Your task to perform on an android device: Open internet settings Image 0: 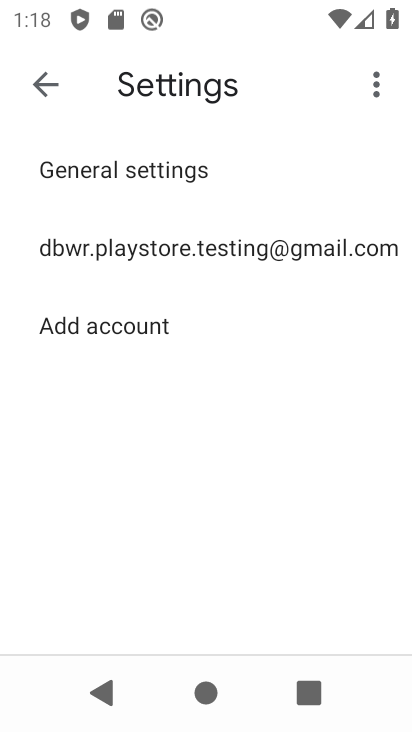
Step 0: press home button
Your task to perform on an android device: Open internet settings Image 1: 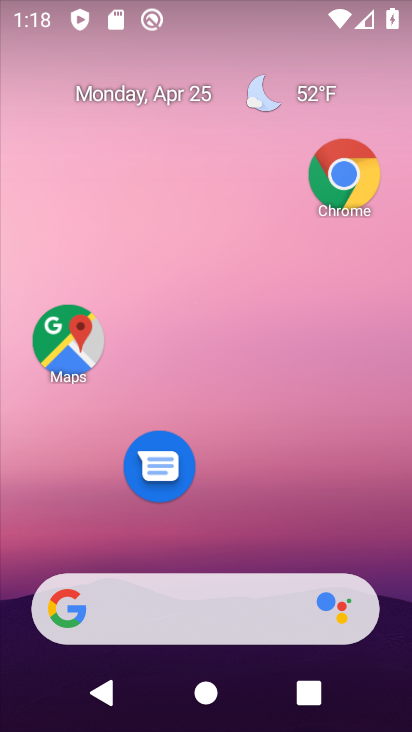
Step 1: drag from (301, 472) to (252, 42)
Your task to perform on an android device: Open internet settings Image 2: 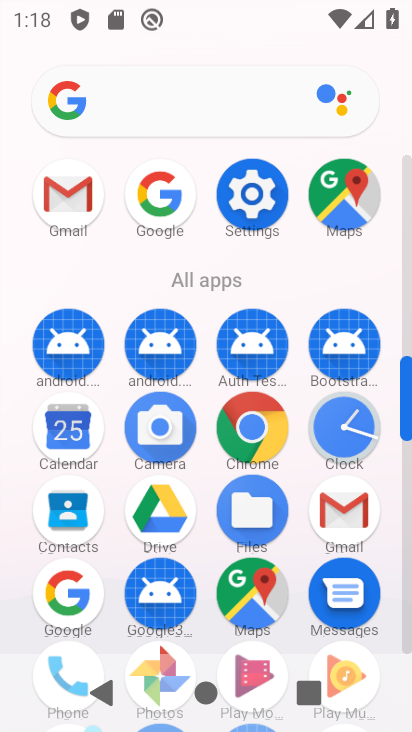
Step 2: click (255, 207)
Your task to perform on an android device: Open internet settings Image 3: 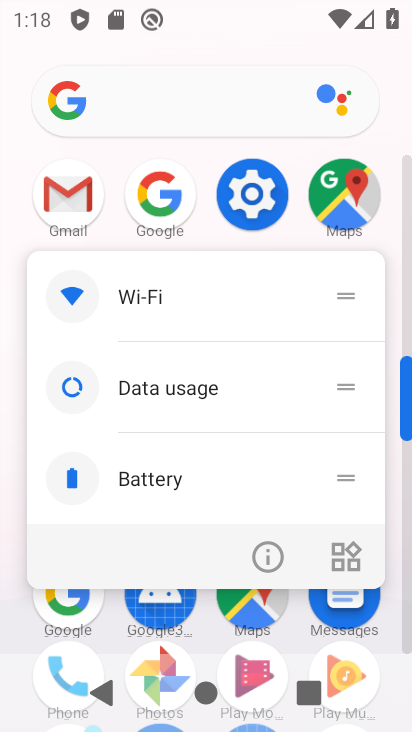
Step 3: click (252, 206)
Your task to perform on an android device: Open internet settings Image 4: 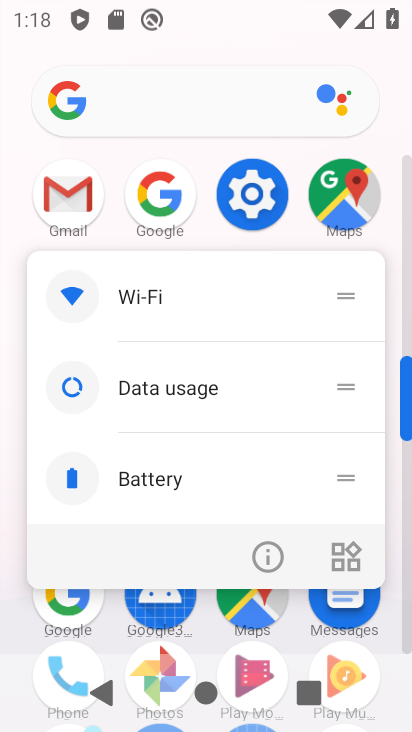
Step 4: click (252, 206)
Your task to perform on an android device: Open internet settings Image 5: 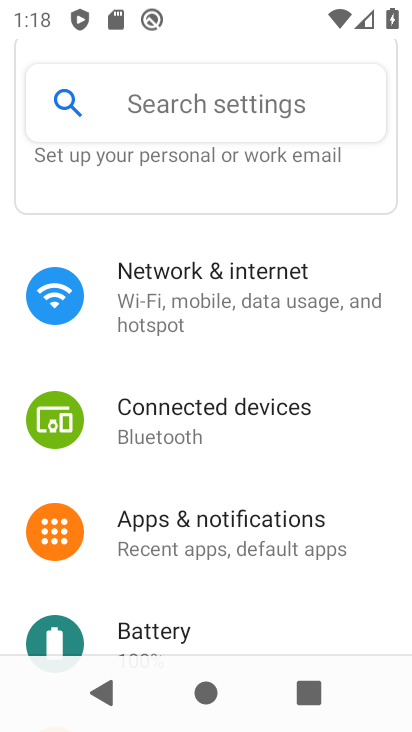
Step 5: click (240, 288)
Your task to perform on an android device: Open internet settings Image 6: 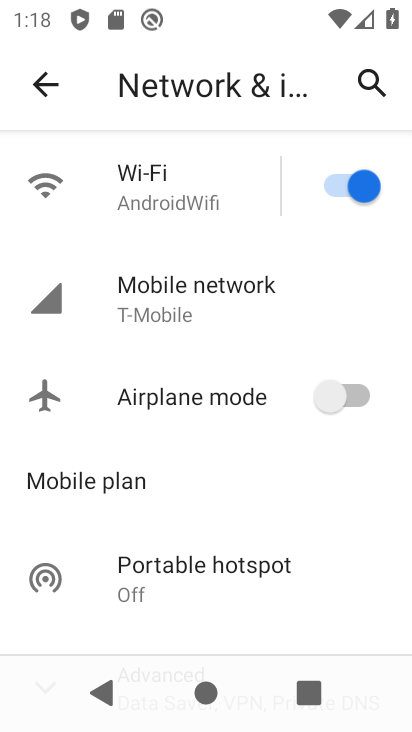
Step 6: click (189, 275)
Your task to perform on an android device: Open internet settings Image 7: 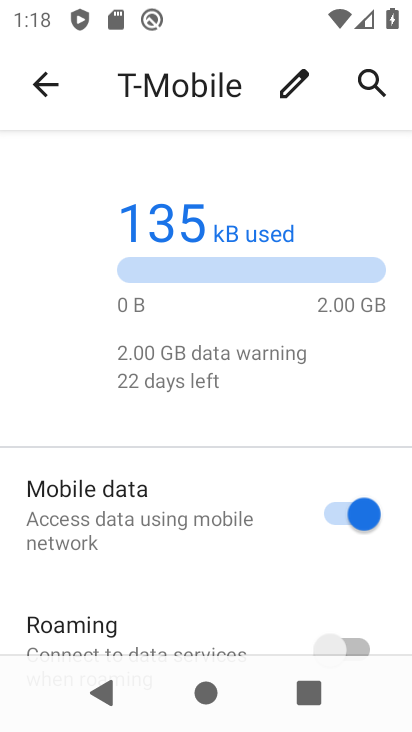
Step 7: task complete